Your task to perform on an android device: Go to Yahoo.com Image 0: 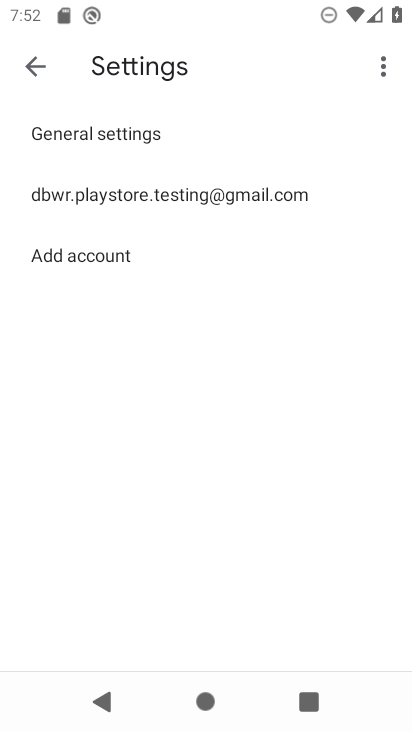
Step 0: press home button
Your task to perform on an android device: Go to Yahoo.com Image 1: 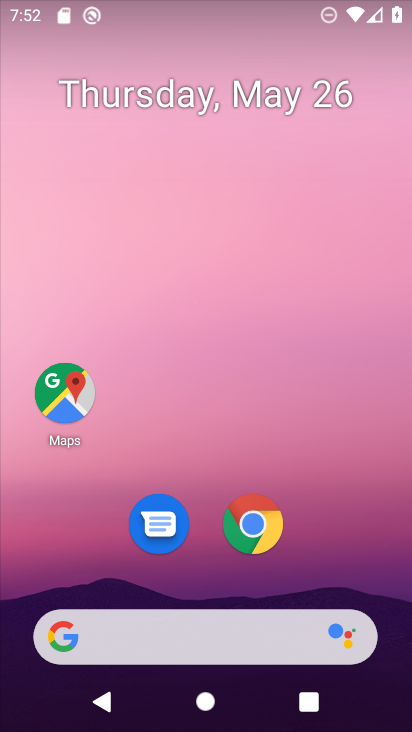
Step 1: click (212, 647)
Your task to perform on an android device: Go to Yahoo.com Image 2: 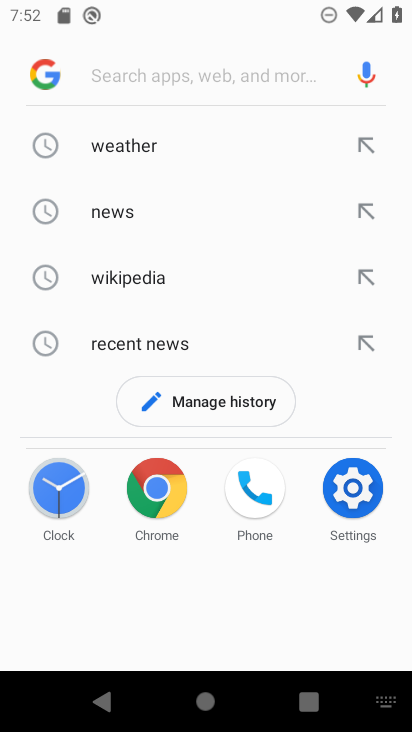
Step 2: type "yahoo.com"
Your task to perform on an android device: Go to Yahoo.com Image 3: 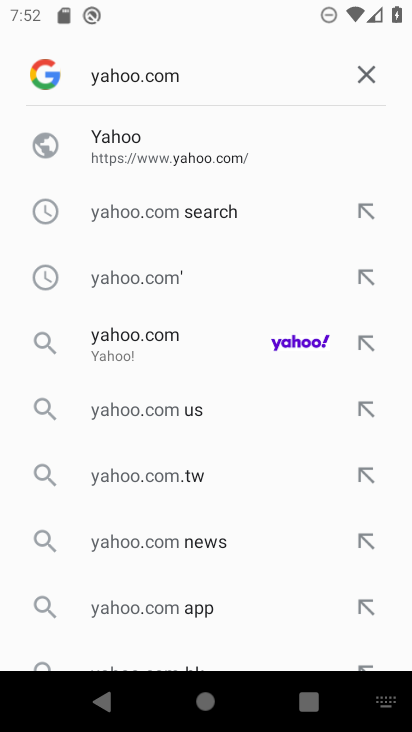
Step 3: click (106, 332)
Your task to perform on an android device: Go to Yahoo.com Image 4: 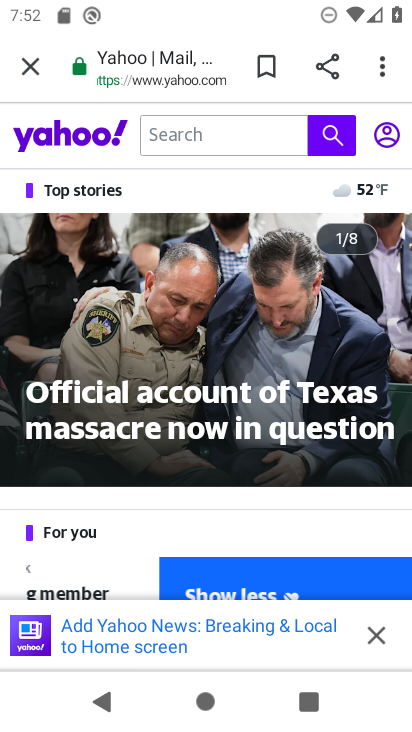
Step 4: task complete